Your task to perform on an android device: install app "Clock" Image 0: 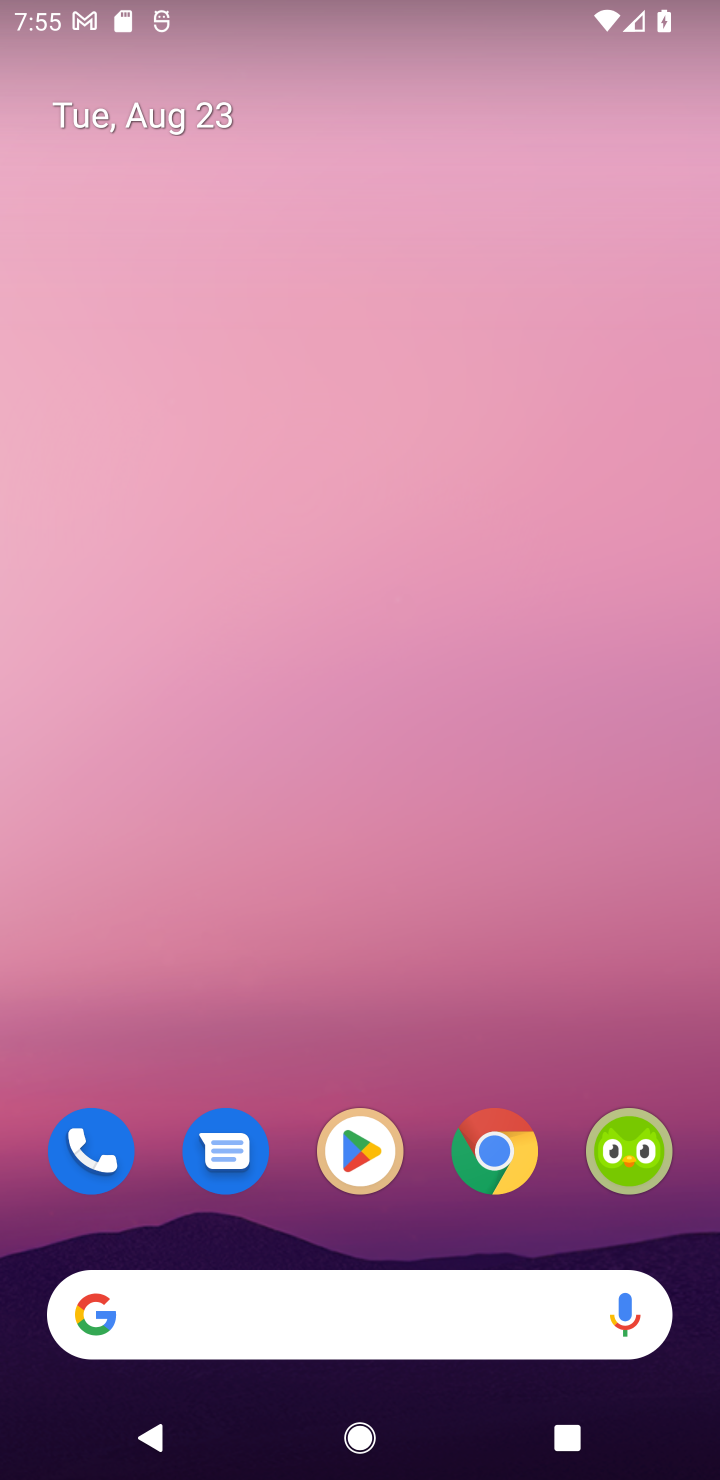
Step 0: click (357, 1189)
Your task to perform on an android device: install app "Clock" Image 1: 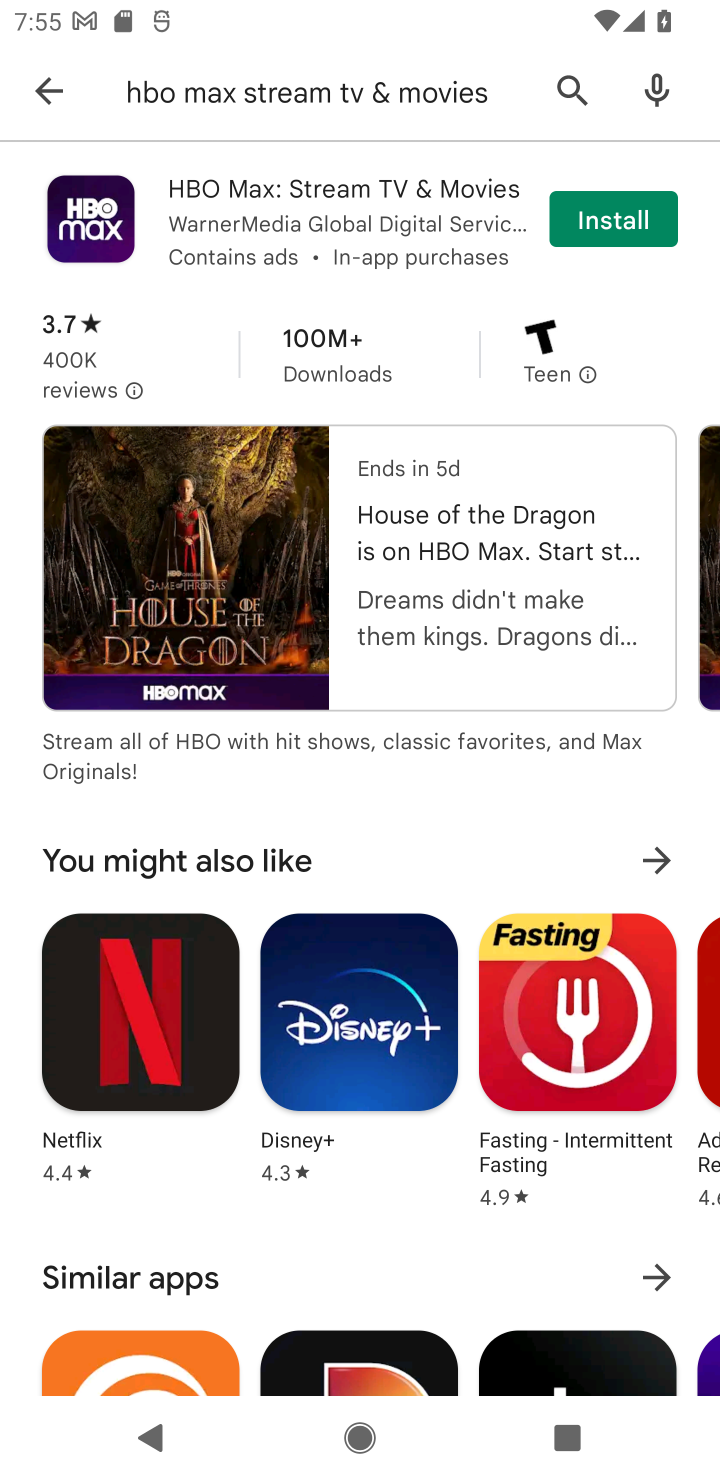
Step 1: click (32, 91)
Your task to perform on an android device: install app "Clock" Image 2: 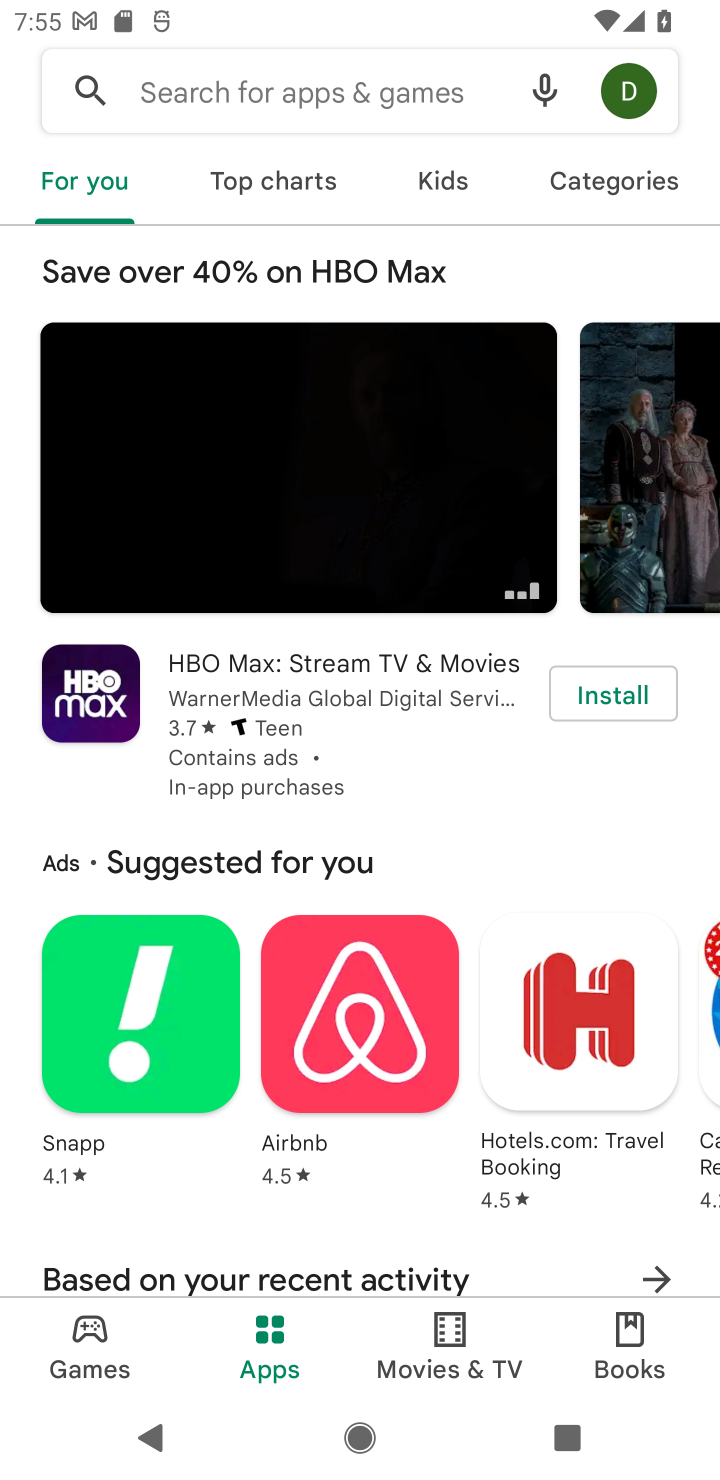
Step 2: click (211, 89)
Your task to perform on an android device: install app "Clock" Image 3: 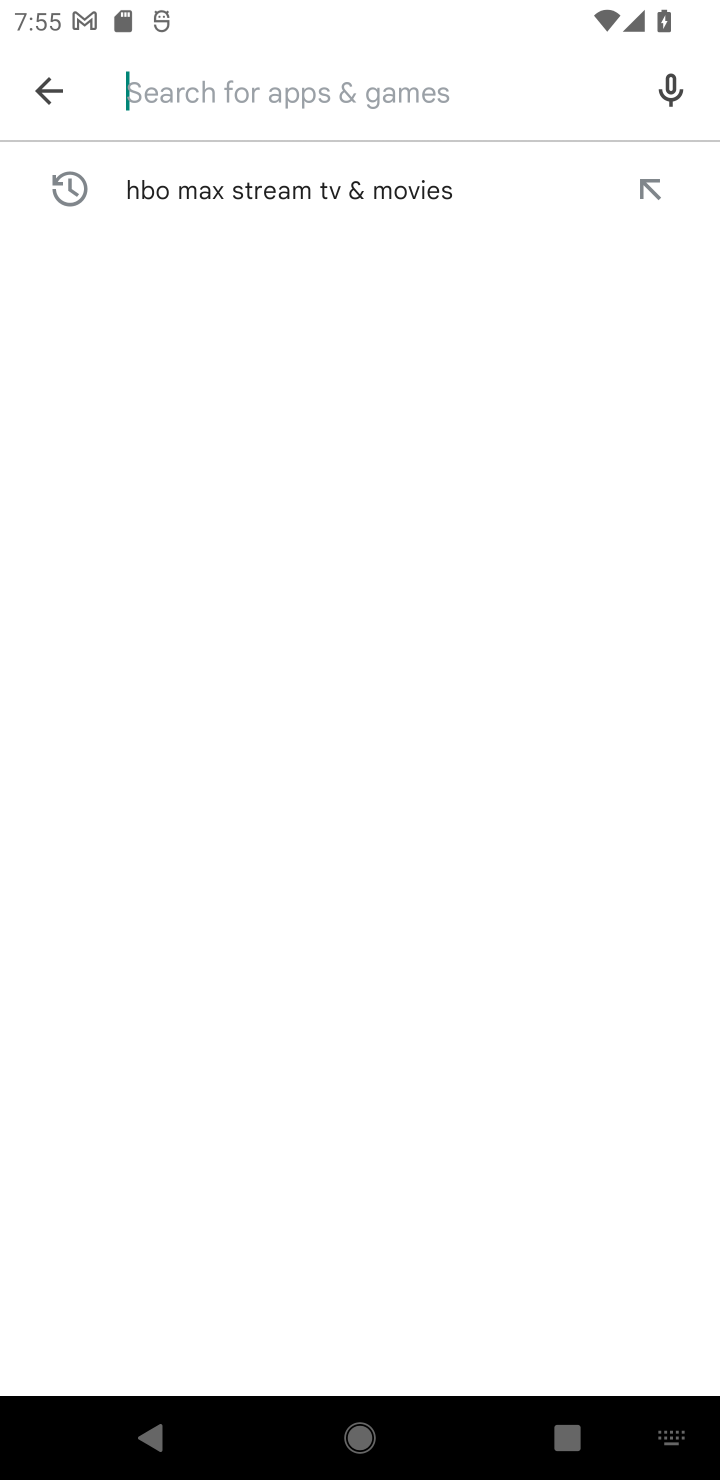
Step 3: type "Clock"
Your task to perform on an android device: install app "Clock" Image 4: 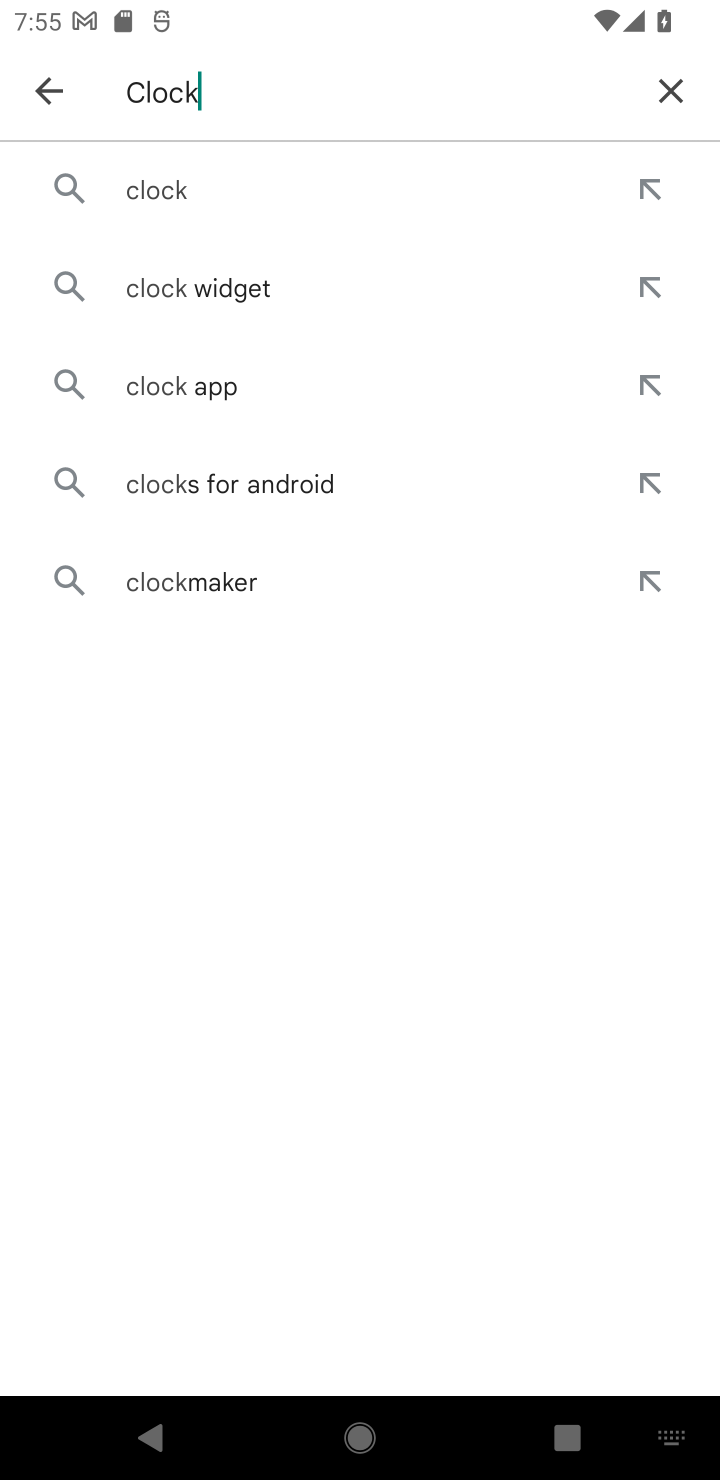
Step 4: click (155, 189)
Your task to perform on an android device: install app "Clock" Image 5: 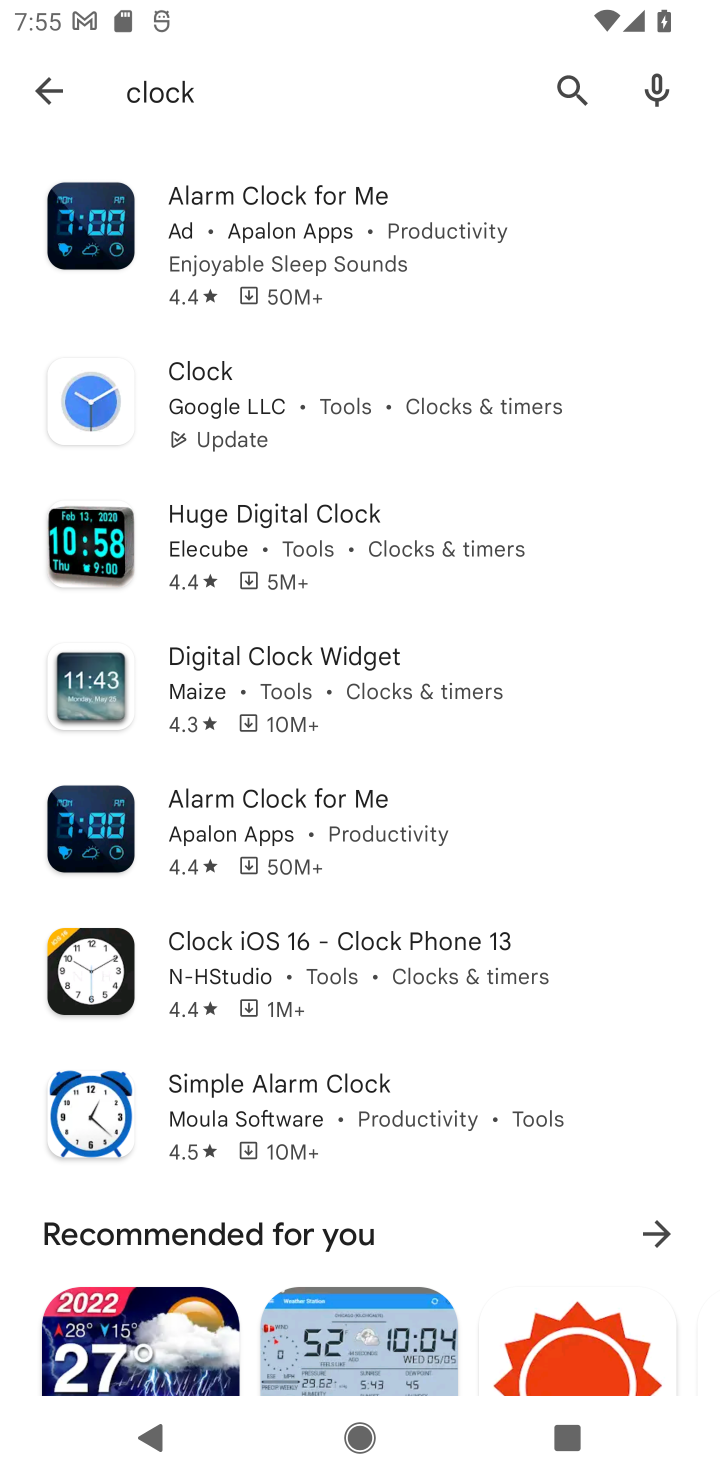
Step 5: click (235, 431)
Your task to perform on an android device: install app "Clock" Image 6: 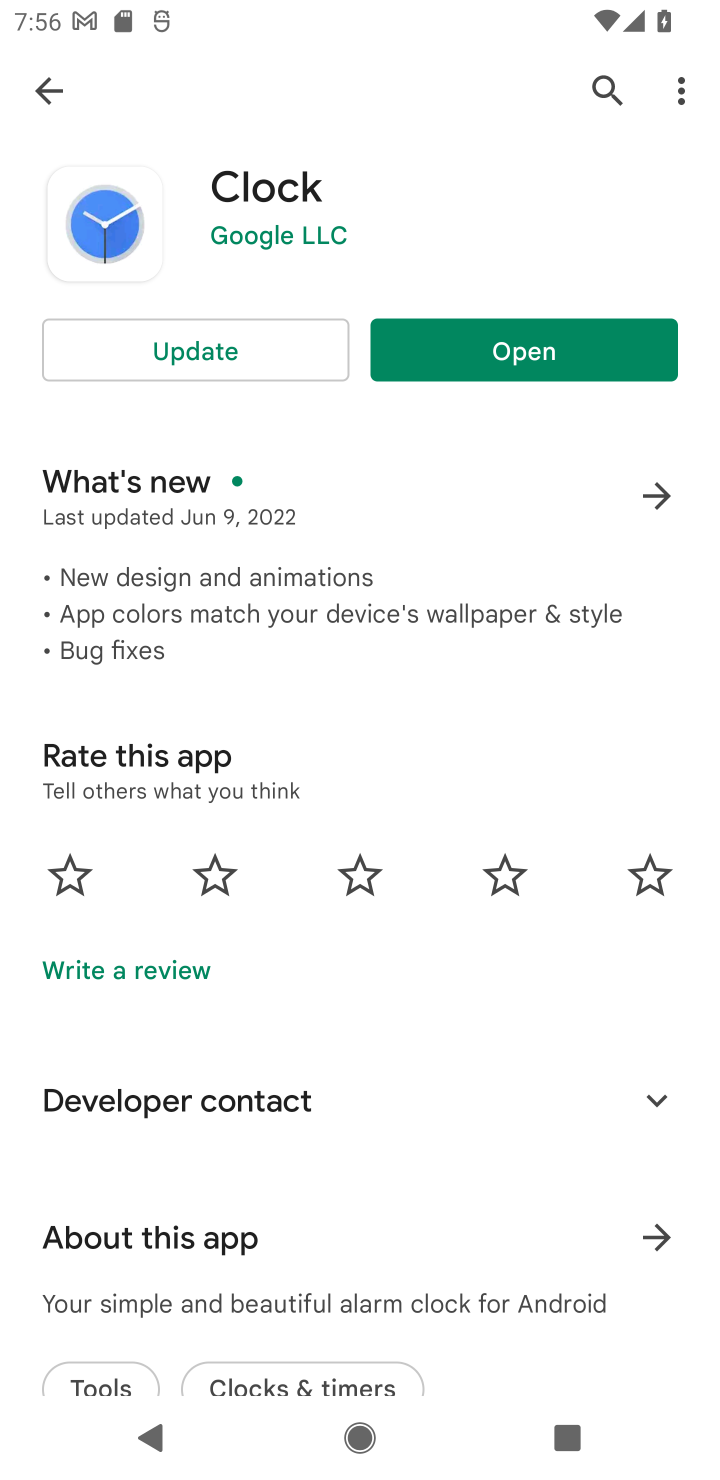
Step 6: click (560, 359)
Your task to perform on an android device: install app "Clock" Image 7: 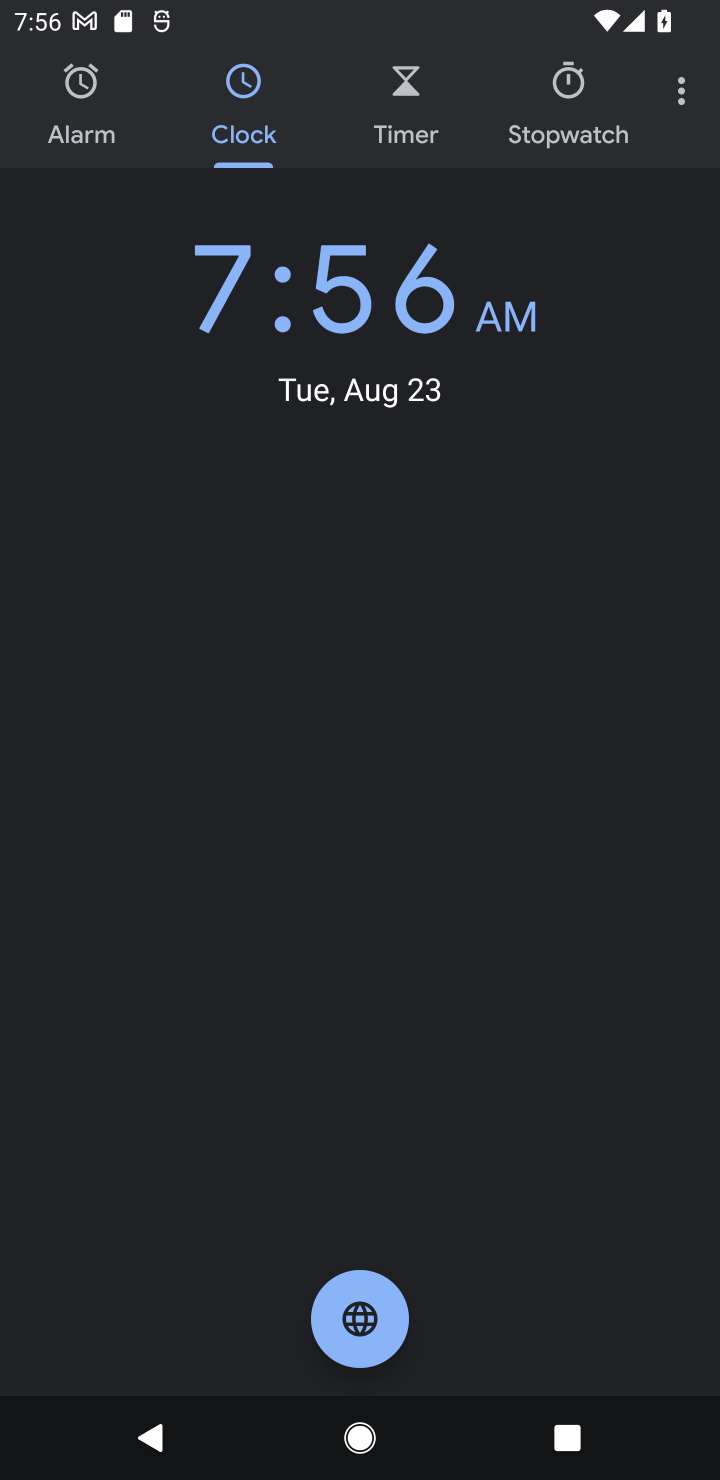
Step 7: task complete